Your task to perform on an android device: turn on airplane mode Image 0: 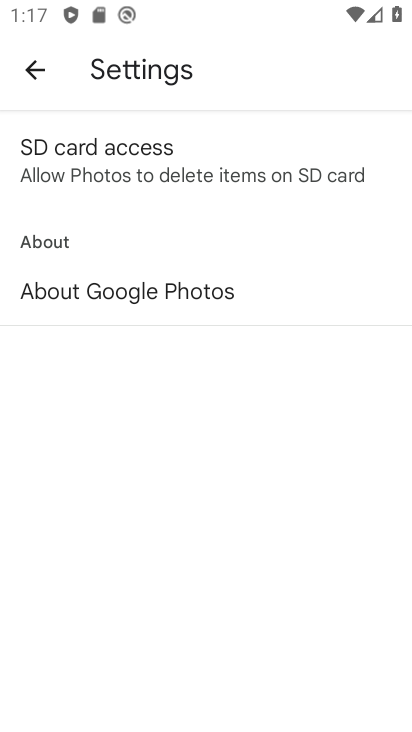
Step 0: click (275, 587)
Your task to perform on an android device: turn on airplane mode Image 1: 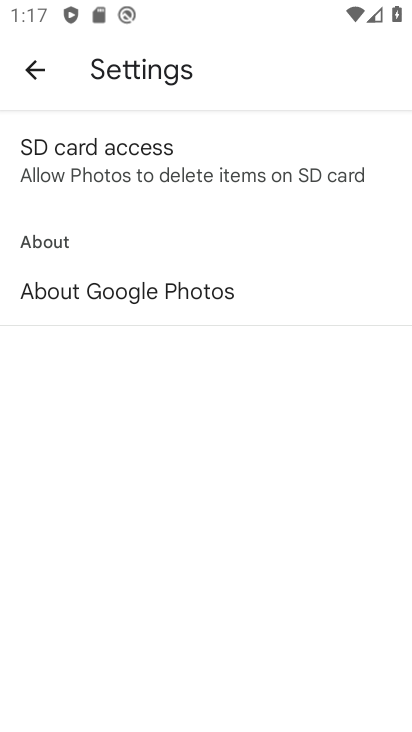
Step 1: click (29, 88)
Your task to perform on an android device: turn on airplane mode Image 2: 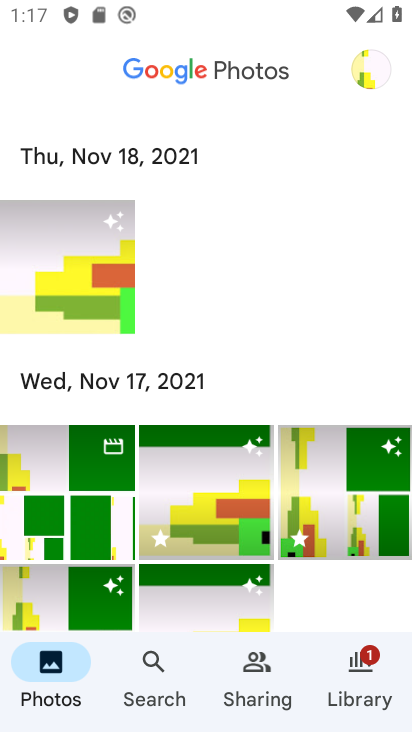
Step 2: press home button
Your task to perform on an android device: turn on airplane mode Image 3: 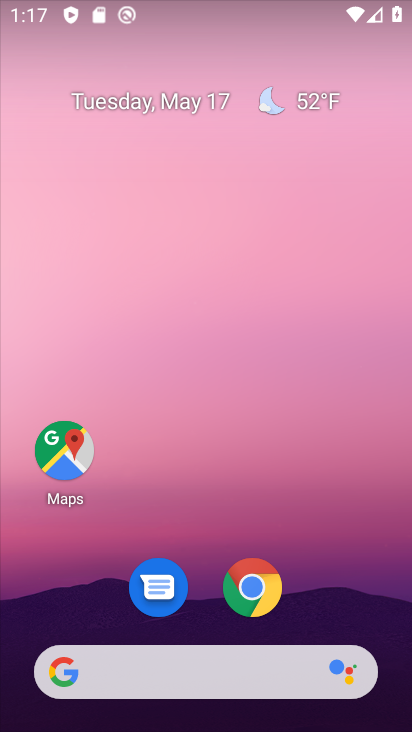
Step 3: drag from (353, 618) to (328, 151)
Your task to perform on an android device: turn on airplane mode Image 4: 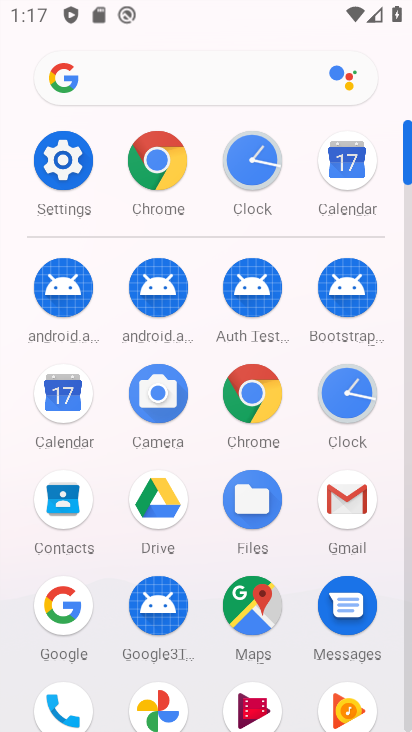
Step 4: click (71, 161)
Your task to perform on an android device: turn on airplane mode Image 5: 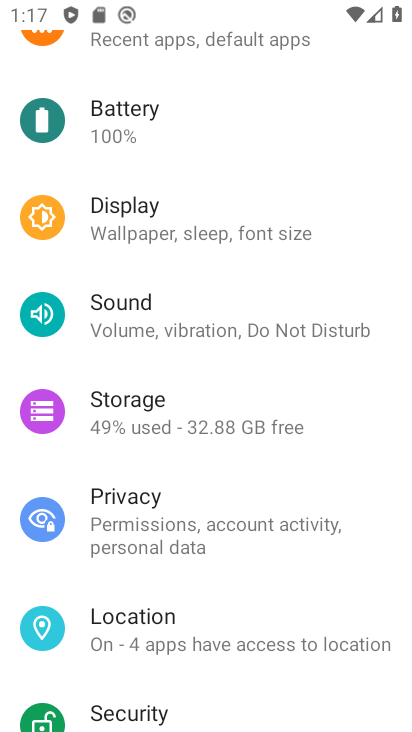
Step 5: drag from (142, 196) to (132, 625)
Your task to perform on an android device: turn on airplane mode Image 6: 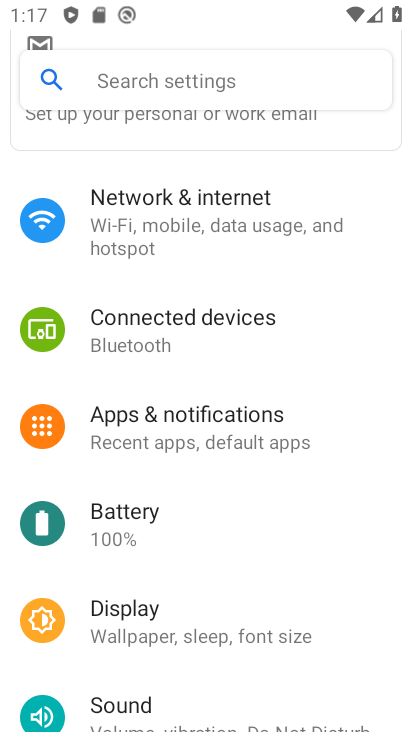
Step 6: click (214, 194)
Your task to perform on an android device: turn on airplane mode Image 7: 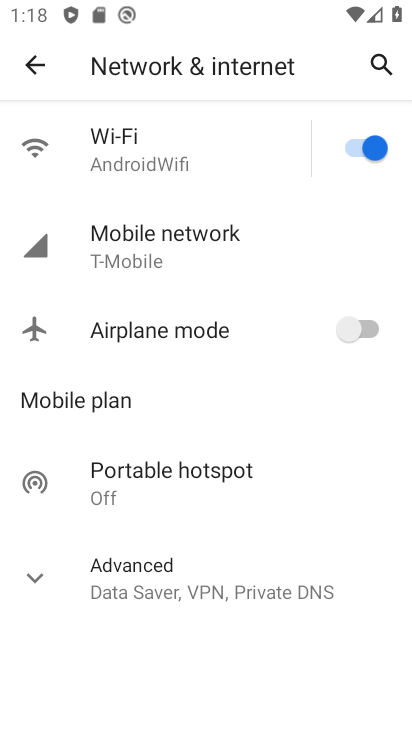
Step 7: click (350, 332)
Your task to perform on an android device: turn on airplane mode Image 8: 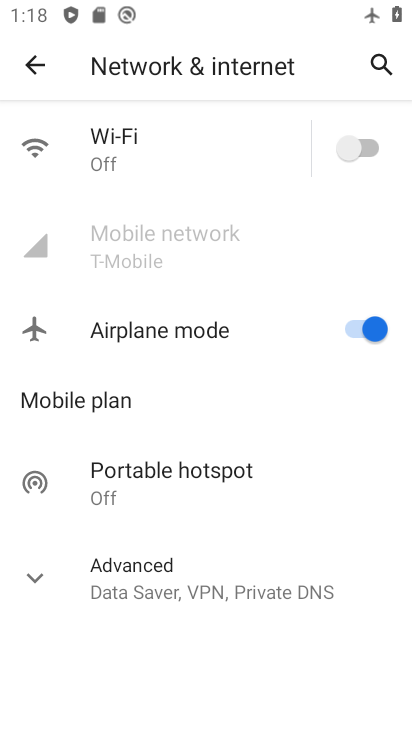
Step 8: task complete